Your task to perform on an android device: Go to Yahoo.com Image 0: 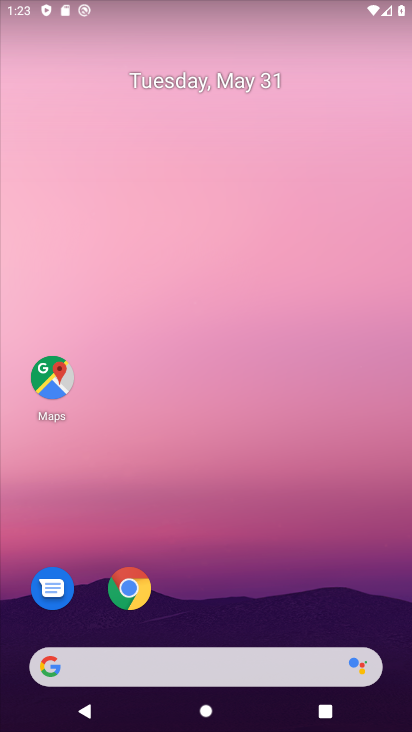
Step 0: click (142, 602)
Your task to perform on an android device: Go to Yahoo.com Image 1: 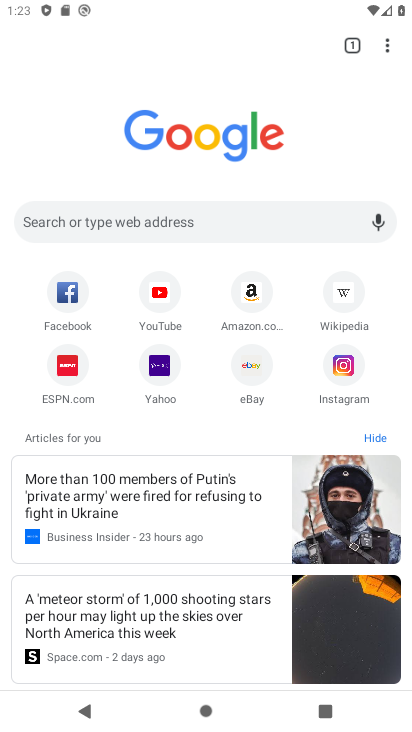
Step 1: click (163, 390)
Your task to perform on an android device: Go to Yahoo.com Image 2: 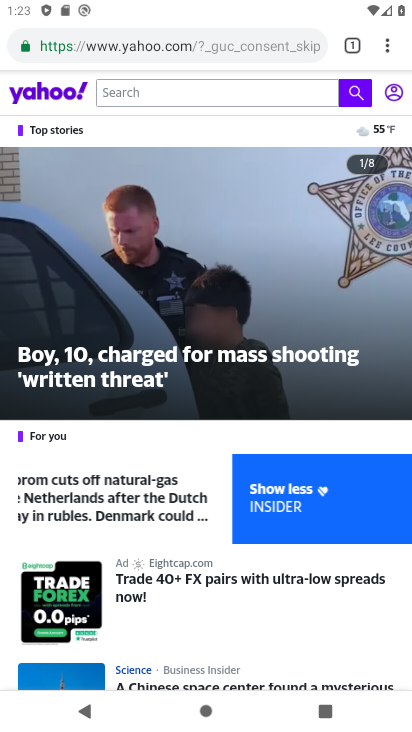
Step 2: task complete